Your task to perform on an android device: set the stopwatch Image 0: 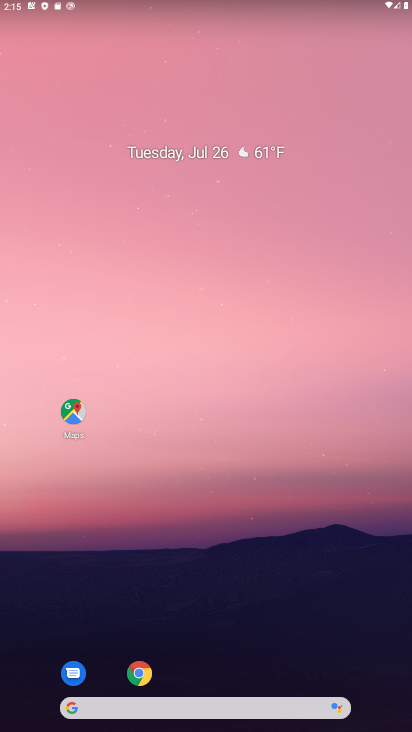
Step 0: drag from (209, 576) to (260, 247)
Your task to perform on an android device: set the stopwatch Image 1: 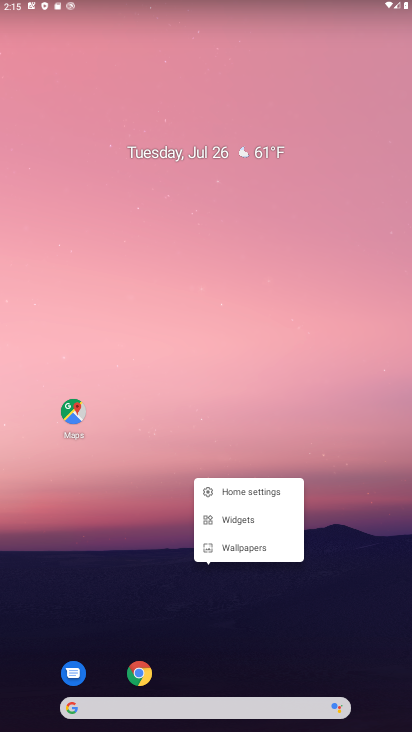
Step 1: drag from (202, 281) to (202, 239)
Your task to perform on an android device: set the stopwatch Image 2: 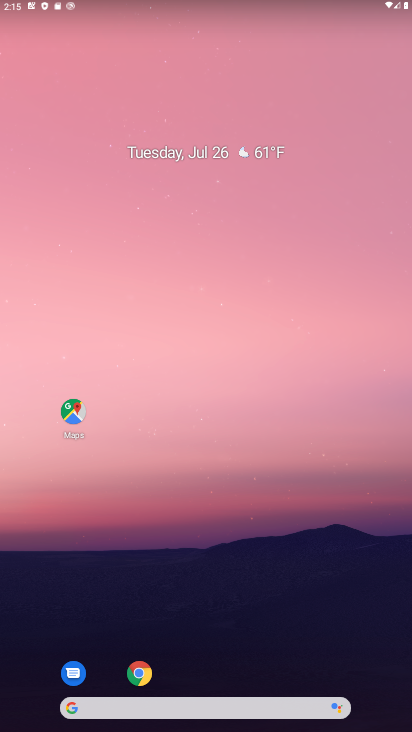
Step 2: click (283, 113)
Your task to perform on an android device: set the stopwatch Image 3: 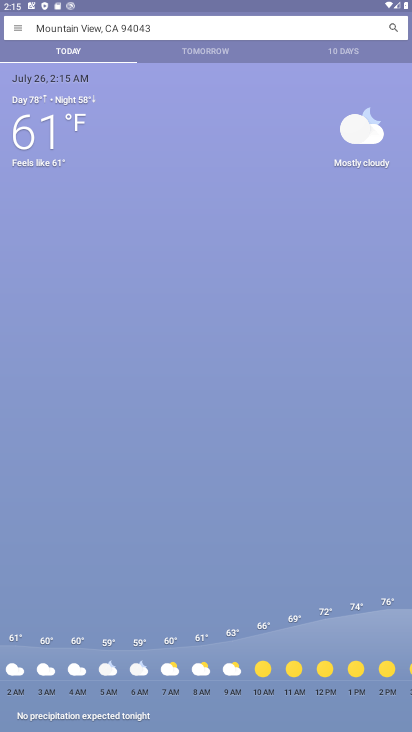
Step 3: press home button
Your task to perform on an android device: set the stopwatch Image 4: 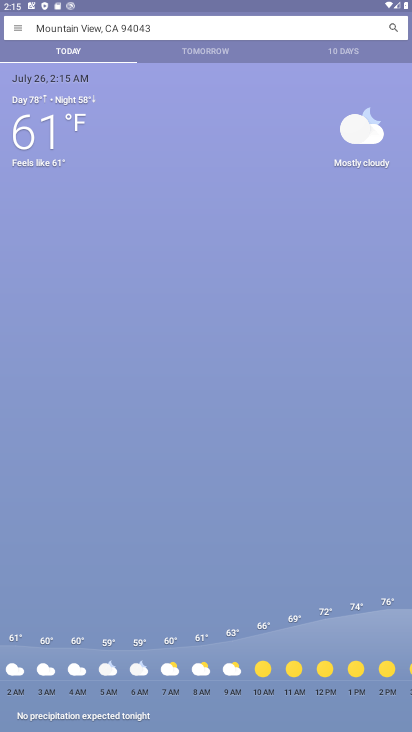
Step 4: drag from (185, 662) to (287, 27)
Your task to perform on an android device: set the stopwatch Image 5: 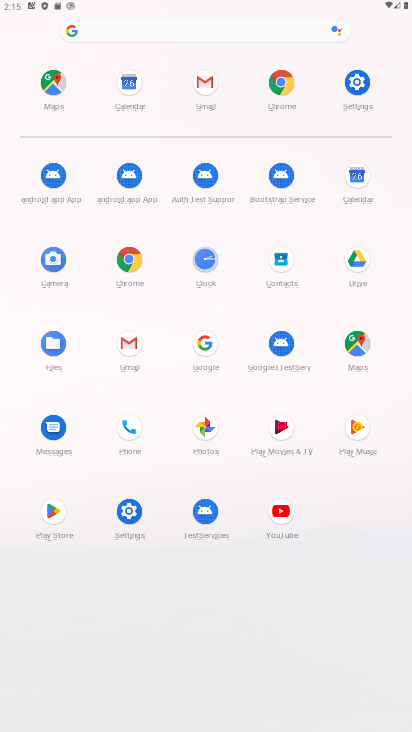
Step 5: drag from (224, 682) to (264, 68)
Your task to perform on an android device: set the stopwatch Image 6: 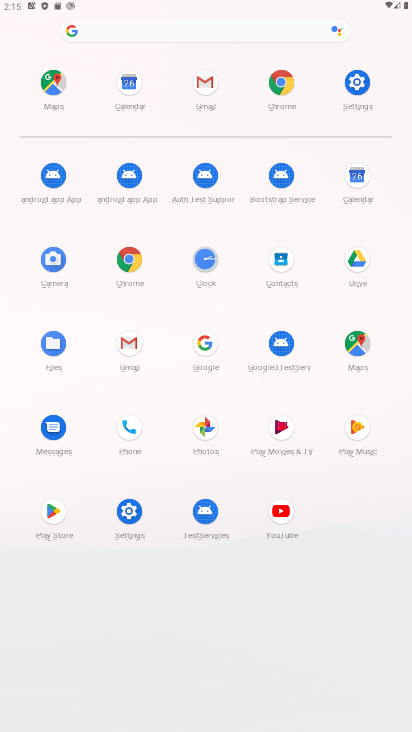
Step 6: click (63, 611)
Your task to perform on an android device: set the stopwatch Image 7: 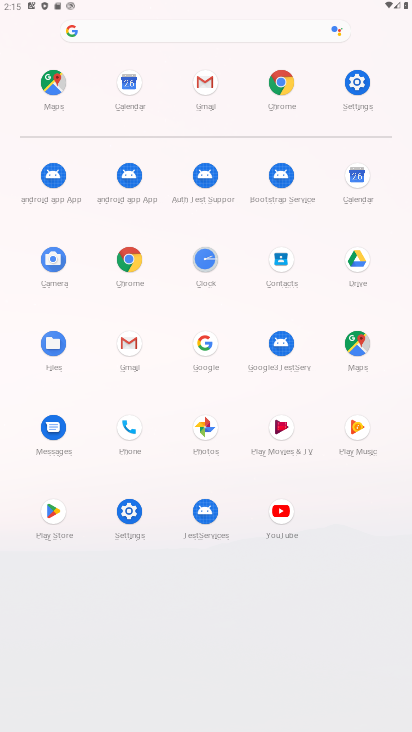
Step 7: click (281, 32)
Your task to perform on an android device: set the stopwatch Image 8: 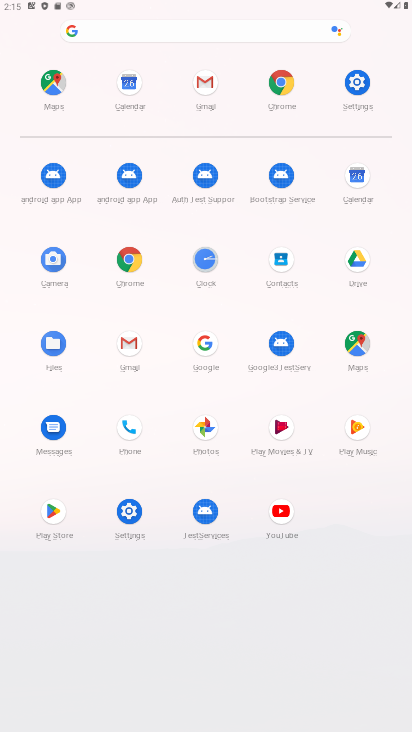
Step 8: press home button
Your task to perform on an android device: set the stopwatch Image 9: 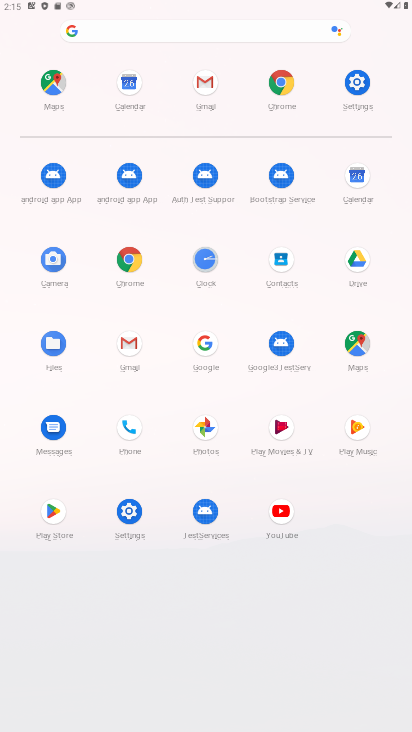
Step 9: click (257, 98)
Your task to perform on an android device: set the stopwatch Image 10: 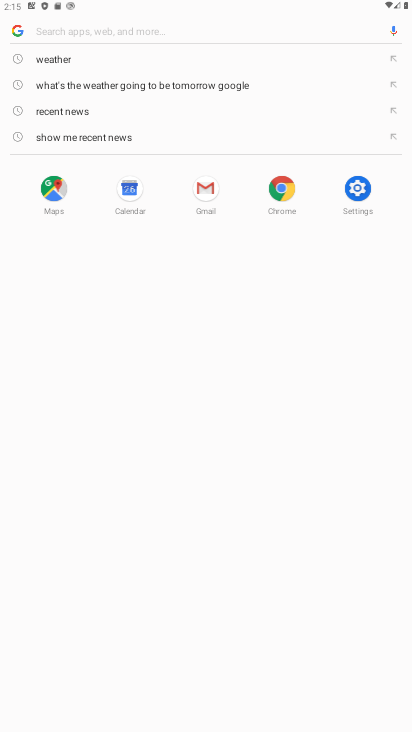
Step 10: press home button
Your task to perform on an android device: set the stopwatch Image 11: 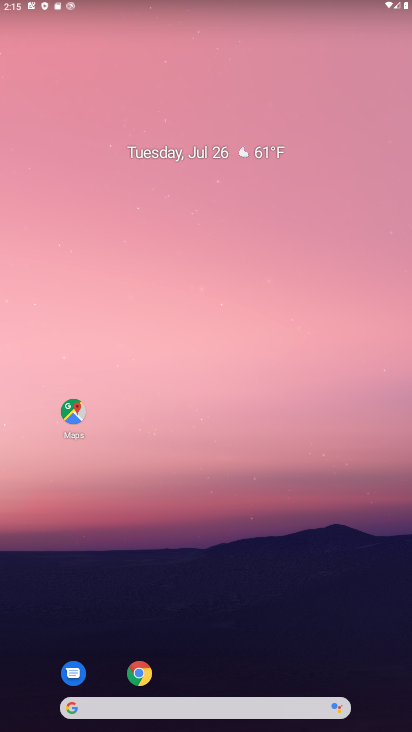
Step 11: drag from (191, 625) to (263, 72)
Your task to perform on an android device: set the stopwatch Image 12: 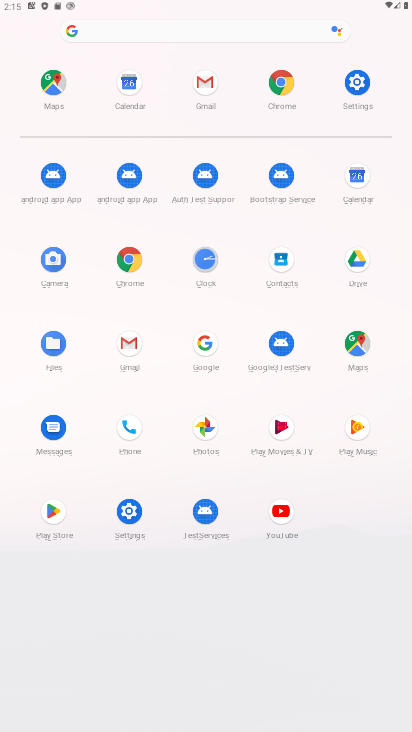
Step 12: click (199, 263)
Your task to perform on an android device: set the stopwatch Image 13: 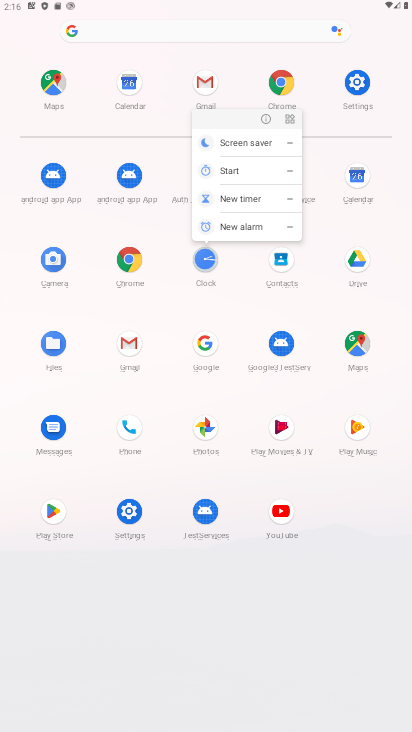
Step 13: click (262, 114)
Your task to perform on an android device: set the stopwatch Image 14: 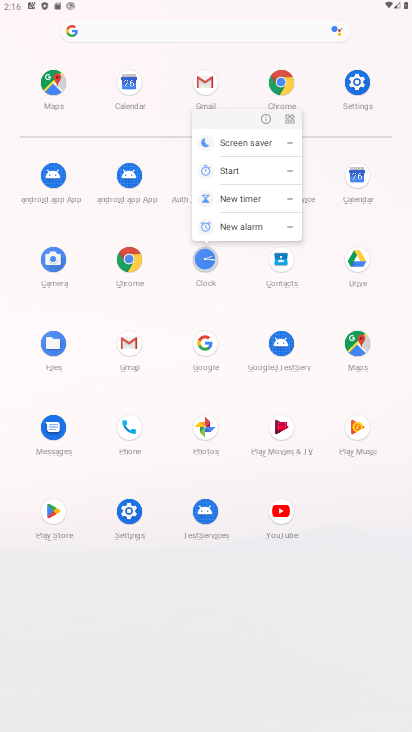
Step 14: click (262, 114)
Your task to perform on an android device: set the stopwatch Image 15: 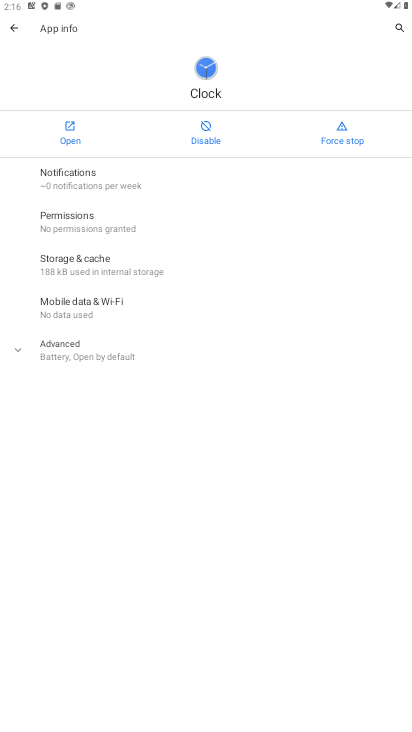
Step 15: click (69, 129)
Your task to perform on an android device: set the stopwatch Image 16: 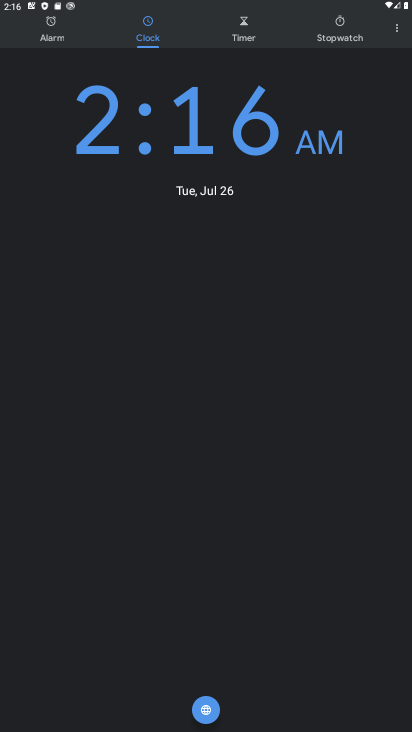
Step 16: click (326, 31)
Your task to perform on an android device: set the stopwatch Image 17: 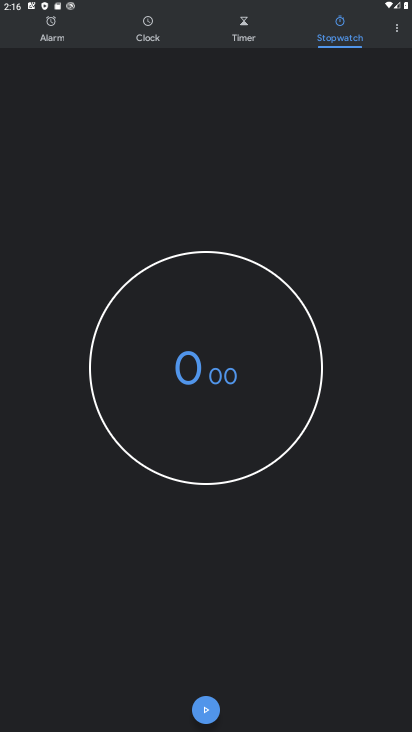
Step 17: click (203, 704)
Your task to perform on an android device: set the stopwatch Image 18: 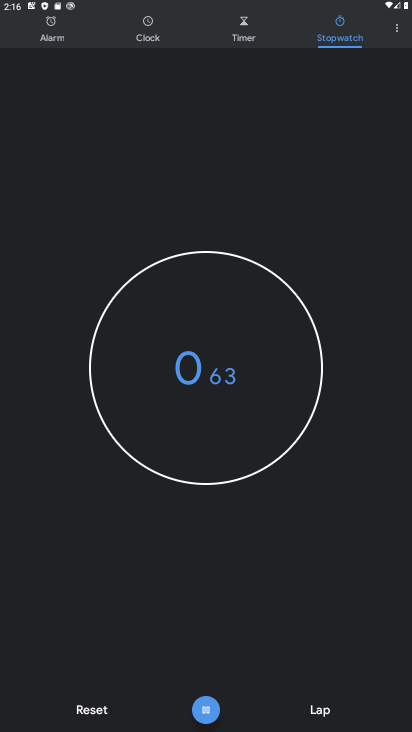
Step 18: task complete